Your task to perform on an android device: change timer sound Image 0: 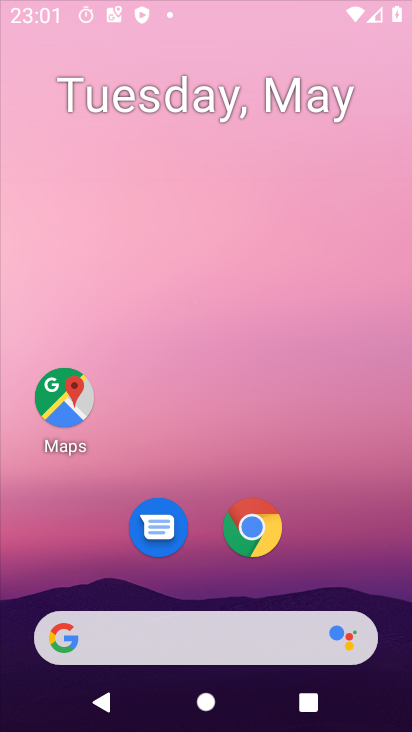
Step 0: click (282, 73)
Your task to perform on an android device: change timer sound Image 1: 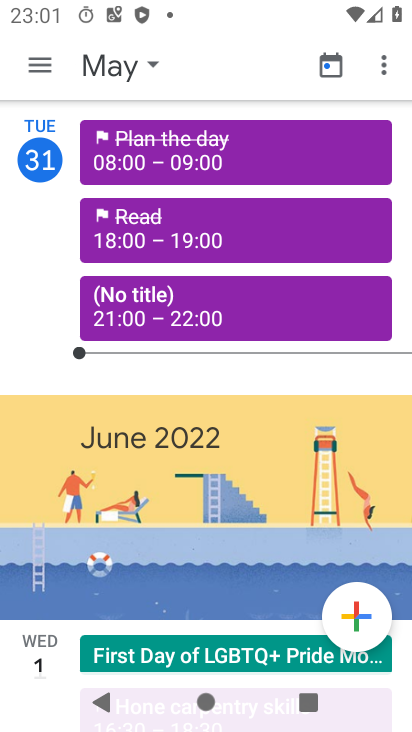
Step 1: drag from (195, 592) to (250, 60)
Your task to perform on an android device: change timer sound Image 2: 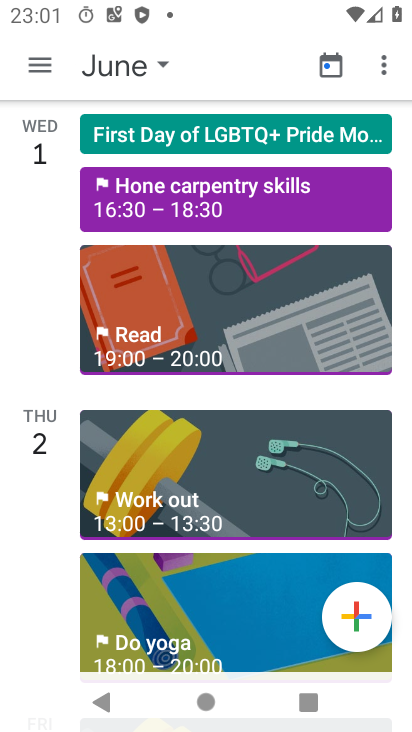
Step 2: drag from (185, 516) to (220, 141)
Your task to perform on an android device: change timer sound Image 3: 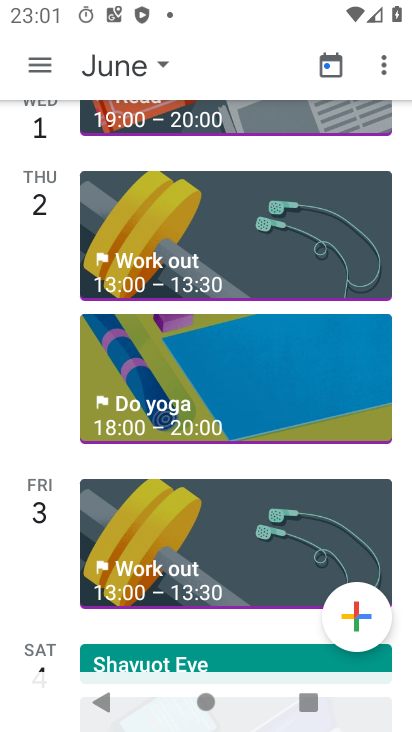
Step 3: click (135, 87)
Your task to perform on an android device: change timer sound Image 4: 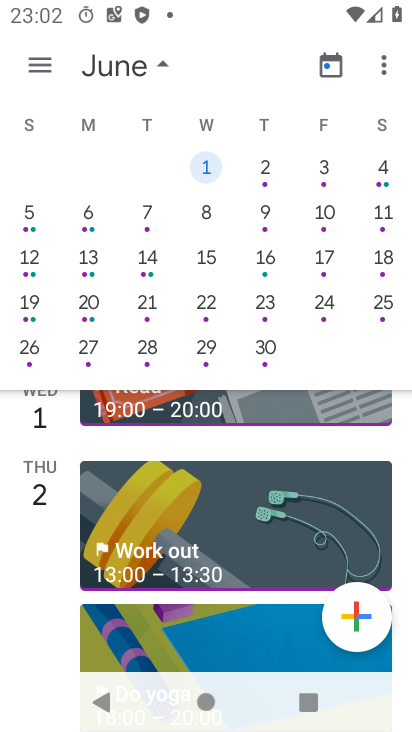
Step 4: drag from (227, 365) to (48, 681)
Your task to perform on an android device: change timer sound Image 5: 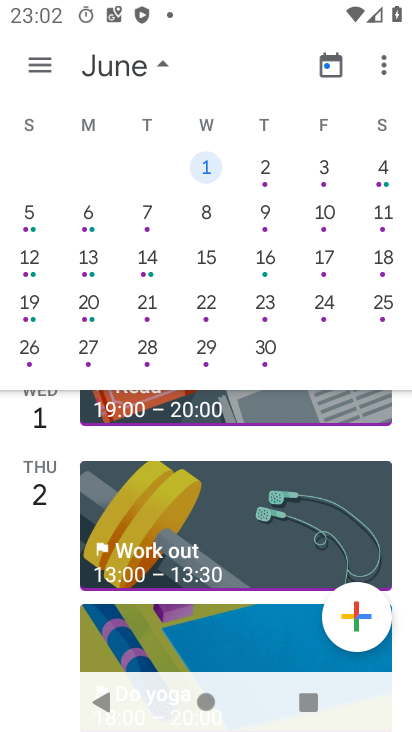
Step 5: drag from (216, 367) to (65, 1)
Your task to perform on an android device: change timer sound Image 6: 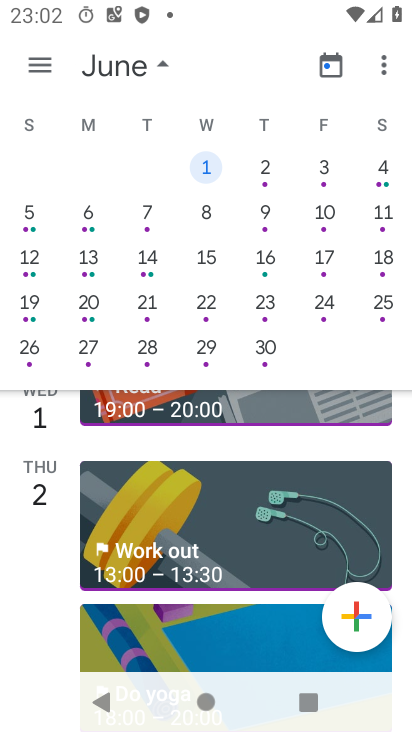
Step 6: press home button
Your task to perform on an android device: change timer sound Image 7: 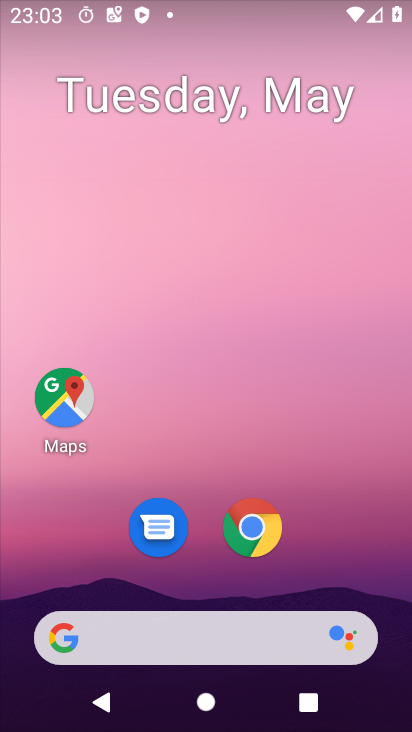
Step 7: drag from (195, 437) to (225, 84)
Your task to perform on an android device: change timer sound Image 8: 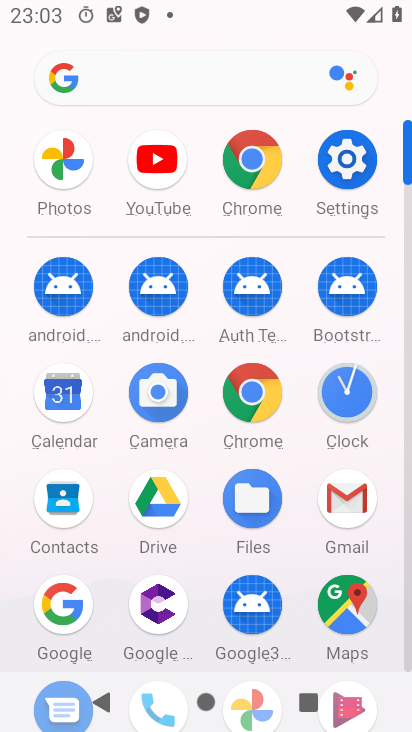
Step 8: click (365, 391)
Your task to perform on an android device: change timer sound Image 9: 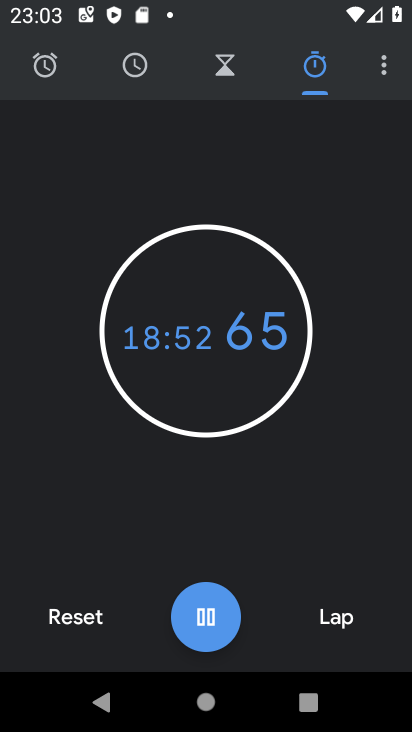
Step 9: click (384, 65)
Your task to perform on an android device: change timer sound Image 10: 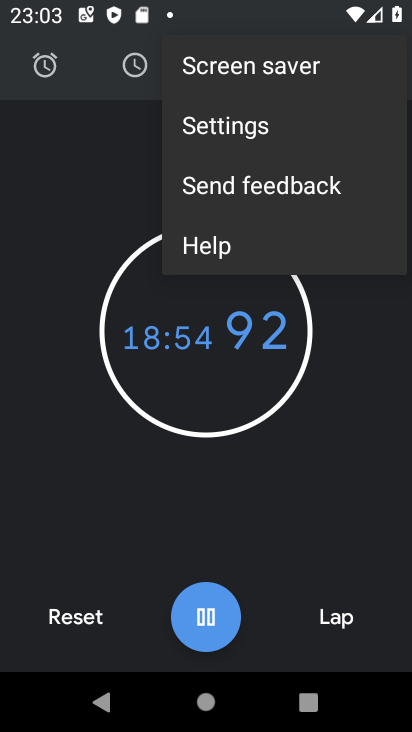
Step 10: click (251, 129)
Your task to perform on an android device: change timer sound Image 11: 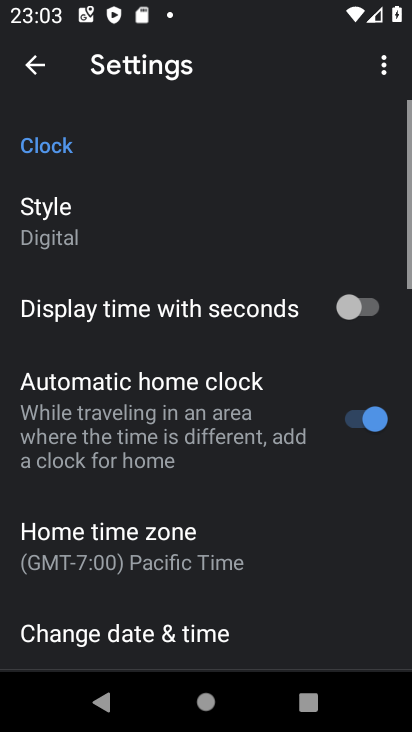
Step 11: drag from (204, 495) to (277, 113)
Your task to perform on an android device: change timer sound Image 12: 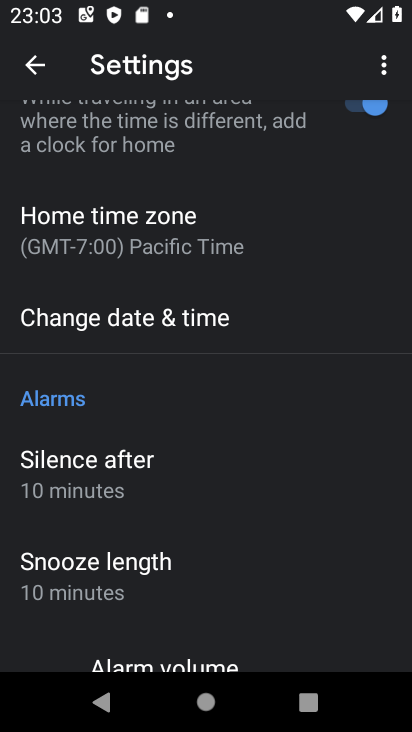
Step 12: drag from (161, 166) to (296, 712)
Your task to perform on an android device: change timer sound Image 13: 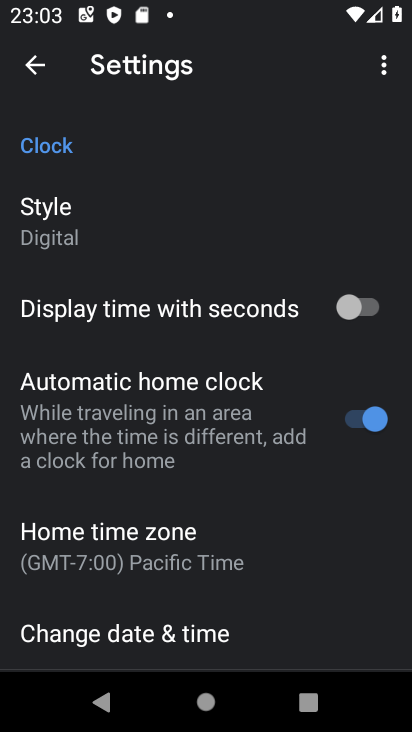
Step 13: drag from (195, 548) to (255, 358)
Your task to perform on an android device: change timer sound Image 14: 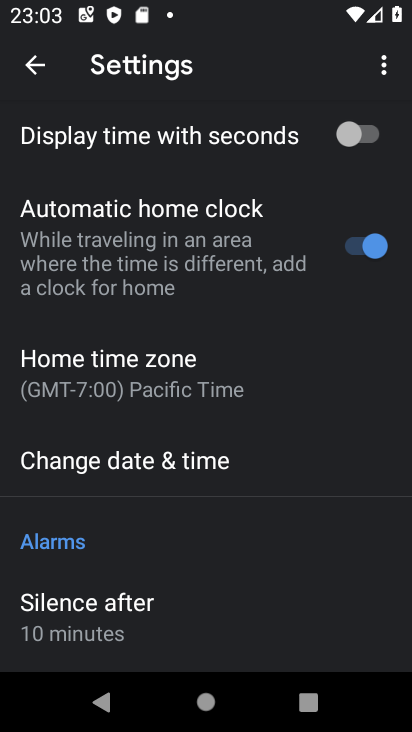
Step 14: drag from (197, 265) to (218, 614)
Your task to perform on an android device: change timer sound Image 15: 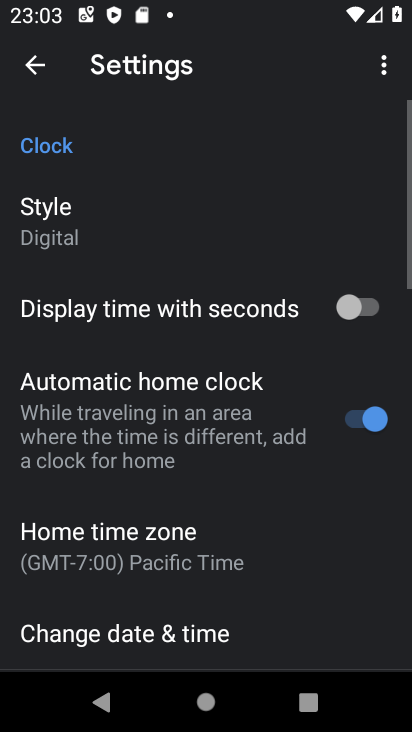
Step 15: drag from (236, 504) to (232, 225)
Your task to perform on an android device: change timer sound Image 16: 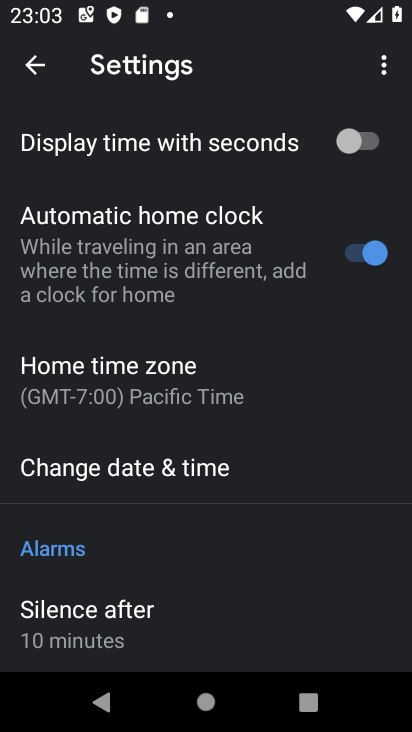
Step 16: drag from (217, 248) to (280, 612)
Your task to perform on an android device: change timer sound Image 17: 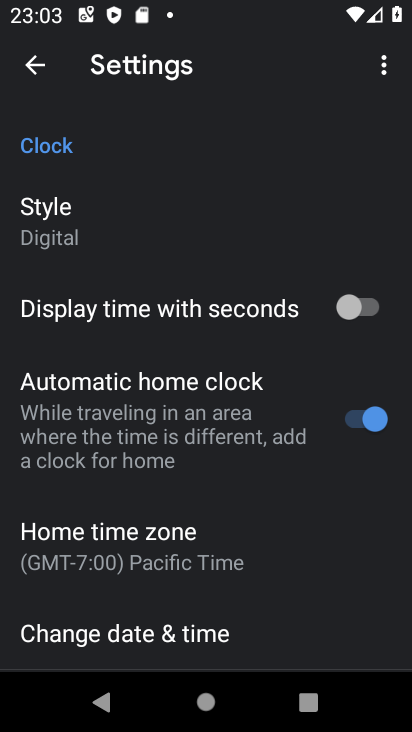
Step 17: drag from (176, 534) to (257, 96)
Your task to perform on an android device: change timer sound Image 18: 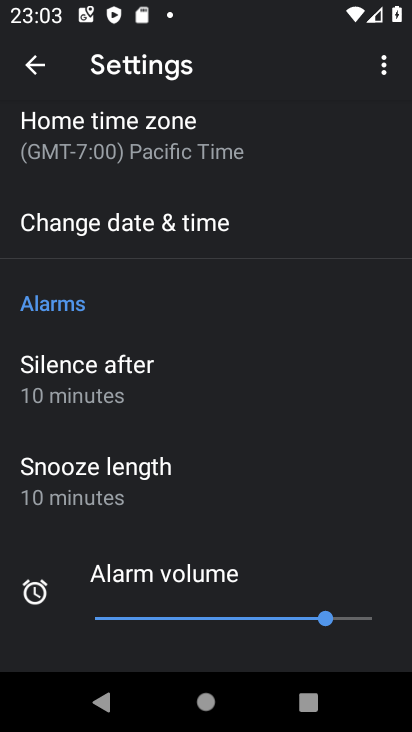
Step 18: drag from (190, 531) to (267, 190)
Your task to perform on an android device: change timer sound Image 19: 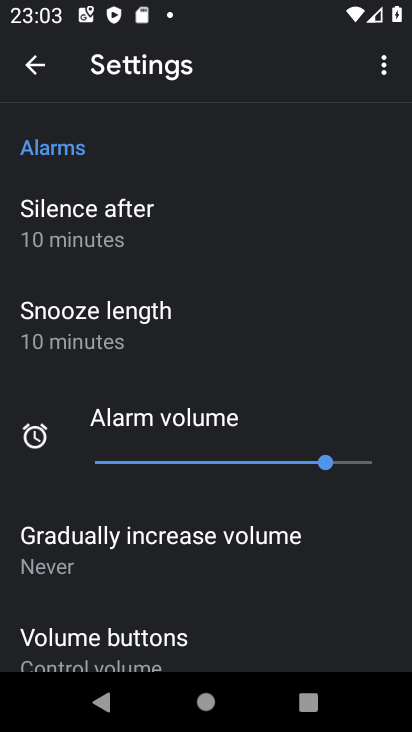
Step 19: drag from (181, 603) to (204, 272)
Your task to perform on an android device: change timer sound Image 20: 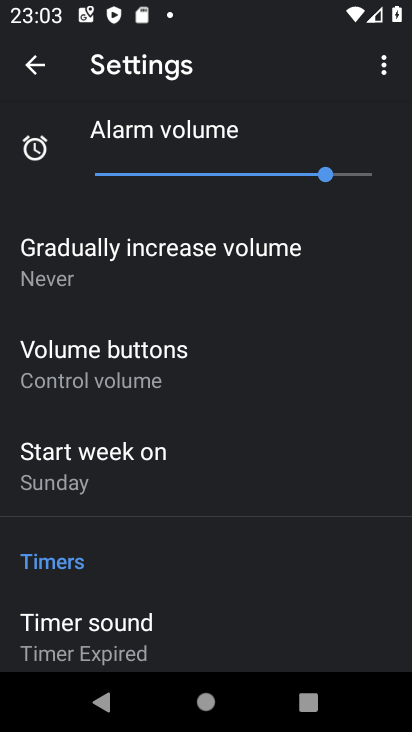
Step 20: click (148, 632)
Your task to perform on an android device: change timer sound Image 21: 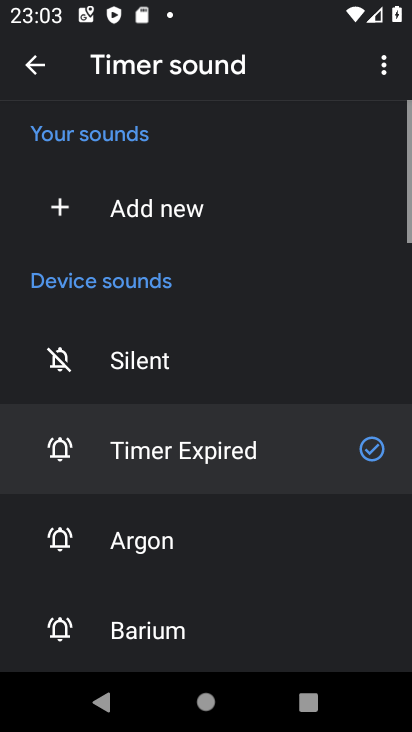
Step 21: drag from (158, 614) to (263, 238)
Your task to perform on an android device: change timer sound Image 22: 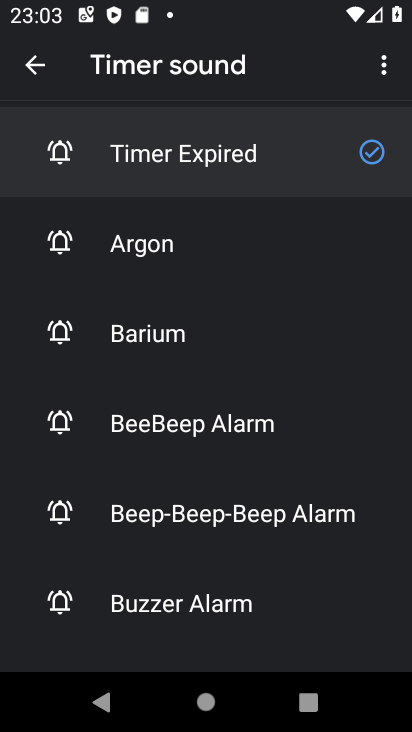
Step 22: click (209, 354)
Your task to perform on an android device: change timer sound Image 23: 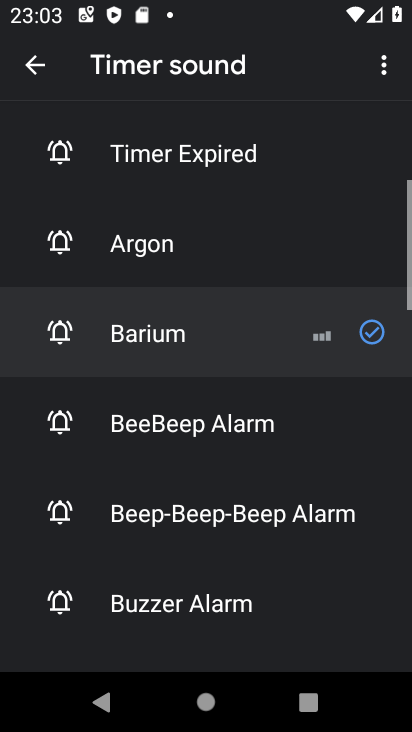
Step 23: task complete